Your task to perform on an android device: check data usage Image 0: 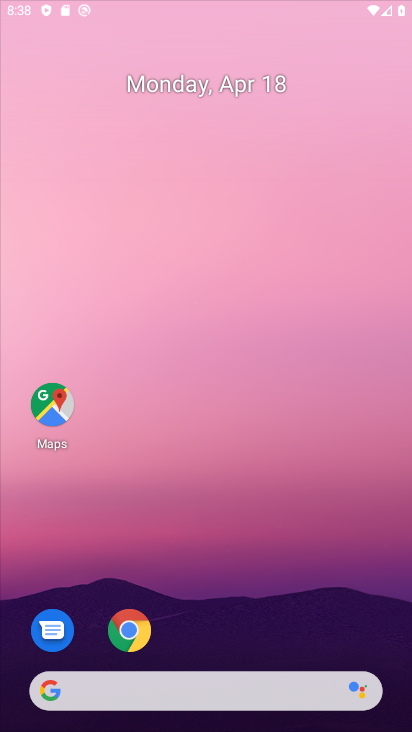
Step 0: drag from (273, 354) to (274, 156)
Your task to perform on an android device: check data usage Image 1: 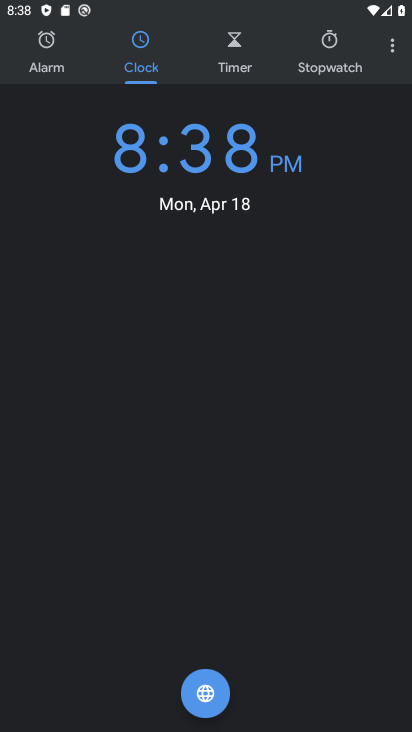
Step 1: press home button
Your task to perform on an android device: check data usage Image 2: 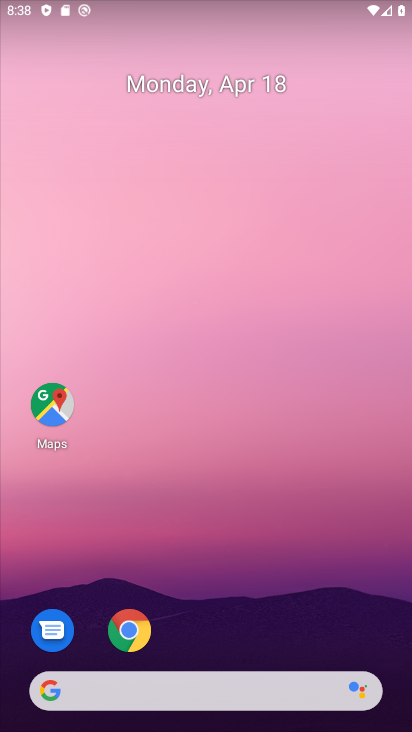
Step 2: drag from (276, 636) to (320, 250)
Your task to perform on an android device: check data usage Image 3: 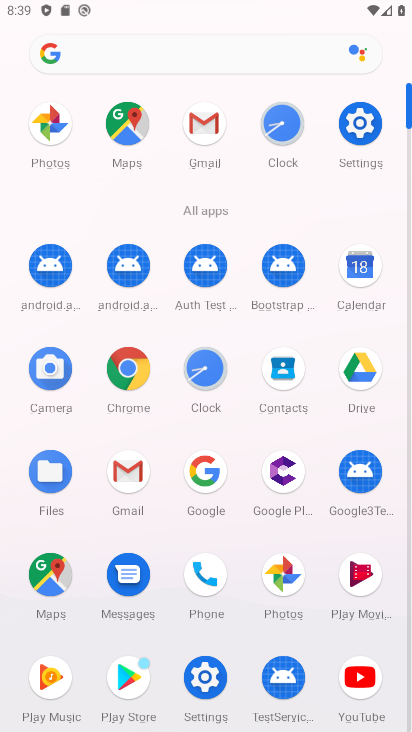
Step 3: click (362, 128)
Your task to perform on an android device: check data usage Image 4: 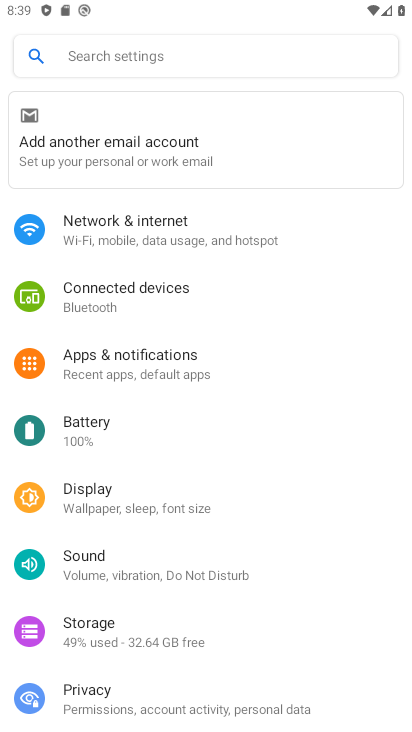
Step 4: click (159, 228)
Your task to perform on an android device: check data usage Image 5: 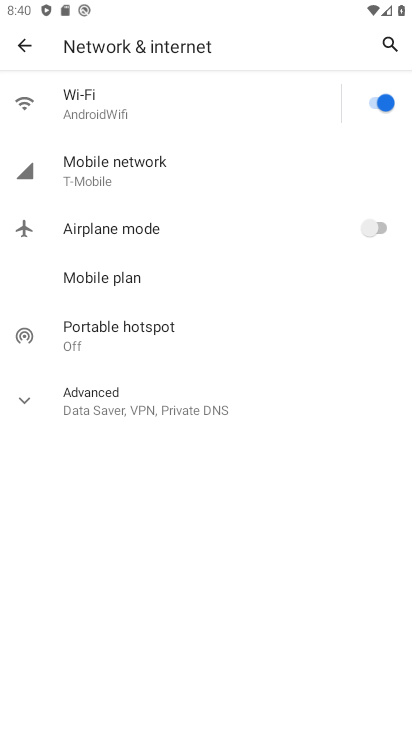
Step 5: click (123, 177)
Your task to perform on an android device: check data usage Image 6: 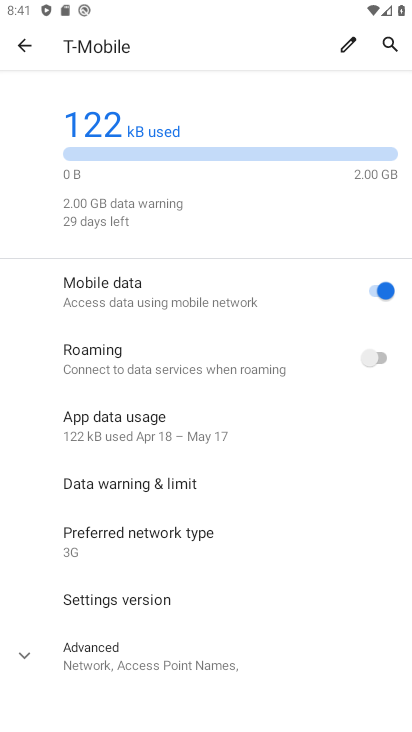
Step 6: task complete